Your task to perform on an android device: open wifi settings Image 0: 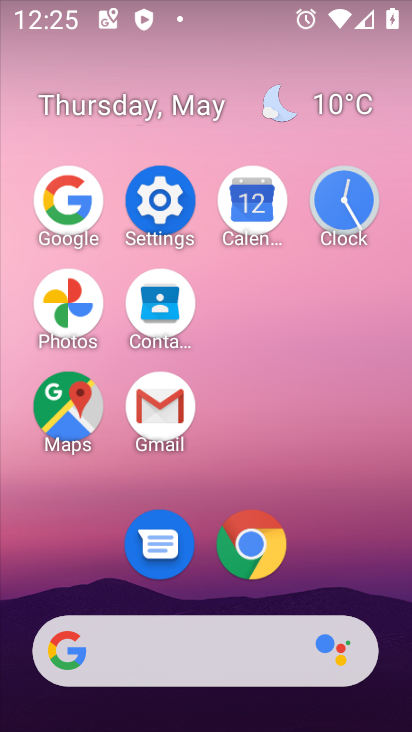
Step 0: click (148, 188)
Your task to perform on an android device: open wifi settings Image 1: 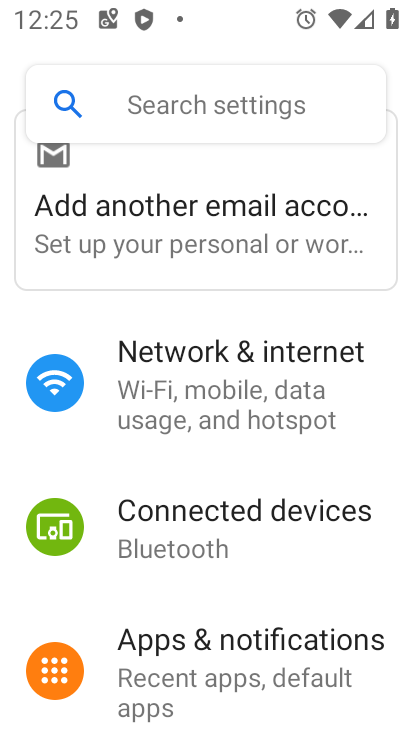
Step 1: click (233, 385)
Your task to perform on an android device: open wifi settings Image 2: 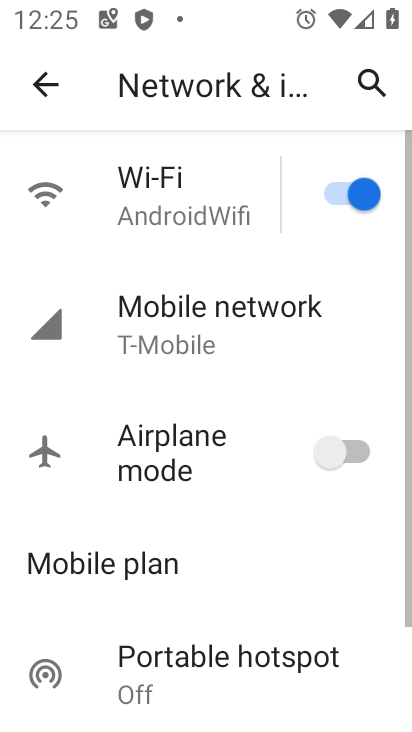
Step 2: click (173, 203)
Your task to perform on an android device: open wifi settings Image 3: 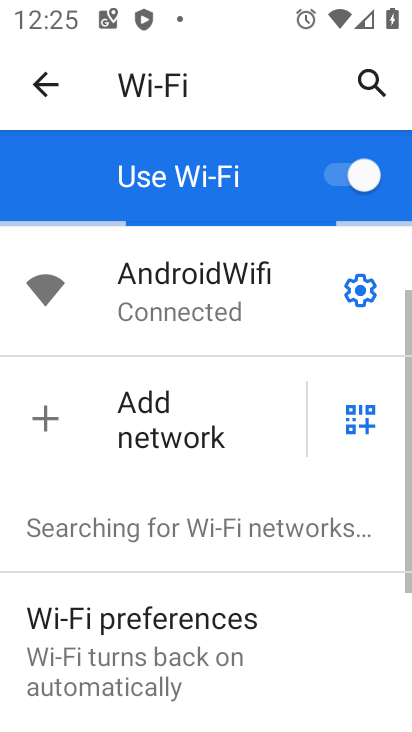
Step 3: click (362, 278)
Your task to perform on an android device: open wifi settings Image 4: 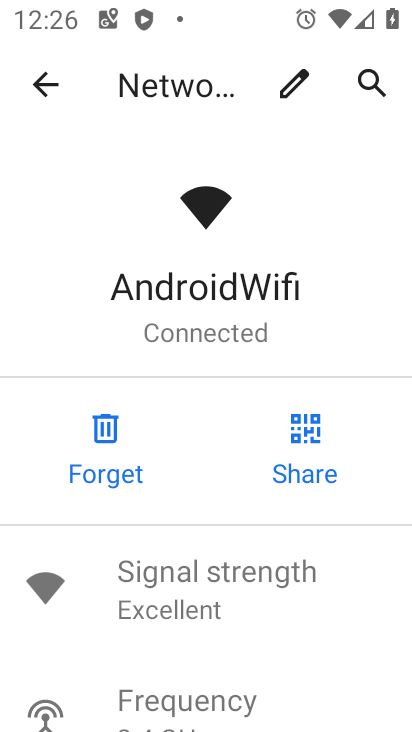
Step 4: task complete